Your task to perform on an android device: turn pop-ups off in chrome Image 0: 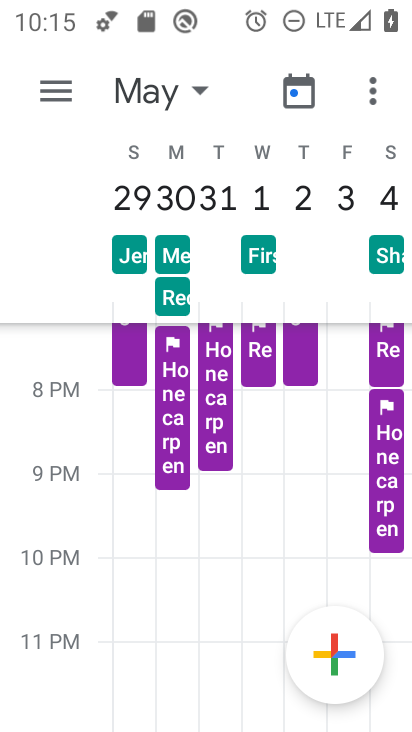
Step 0: press home button
Your task to perform on an android device: turn pop-ups off in chrome Image 1: 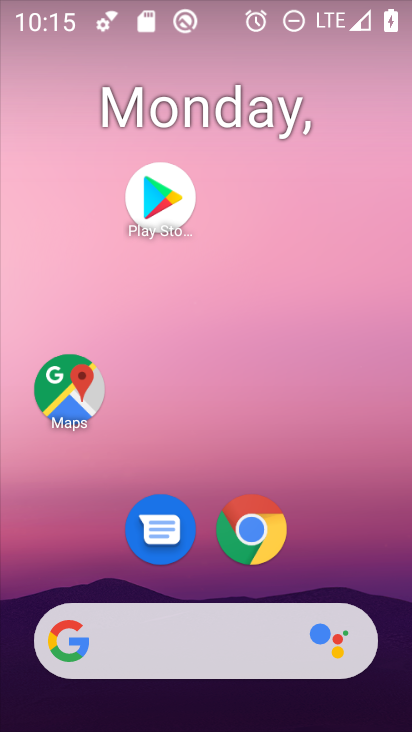
Step 1: click (266, 528)
Your task to perform on an android device: turn pop-ups off in chrome Image 2: 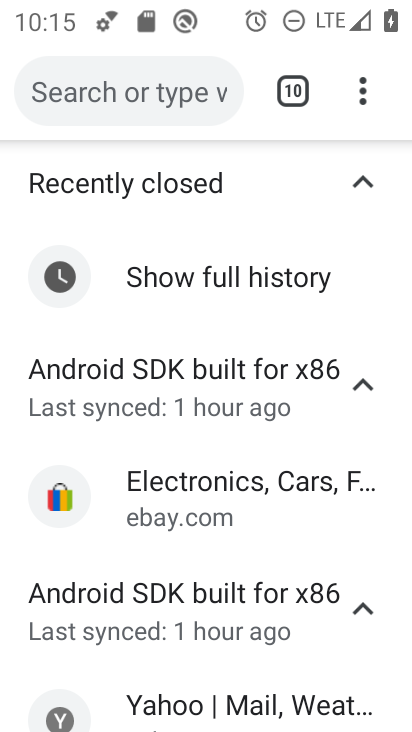
Step 2: click (360, 88)
Your task to perform on an android device: turn pop-ups off in chrome Image 3: 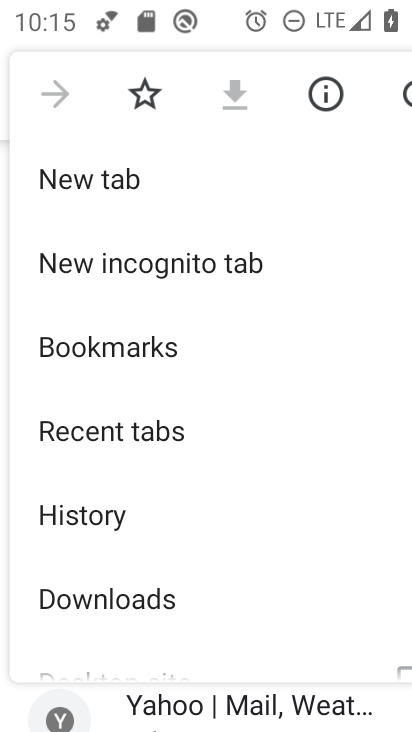
Step 3: drag from (232, 496) to (175, 280)
Your task to perform on an android device: turn pop-ups off in chrome Image 4: 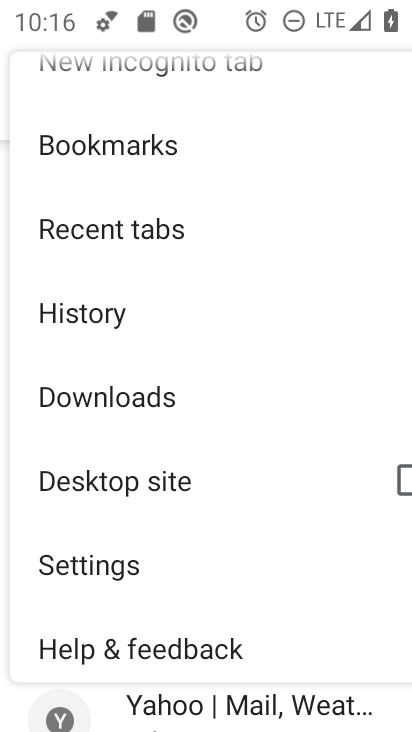
Step 4: click (95, 557)
Your task to perform on an android device: turn pop-ups off in chrome Image 5: 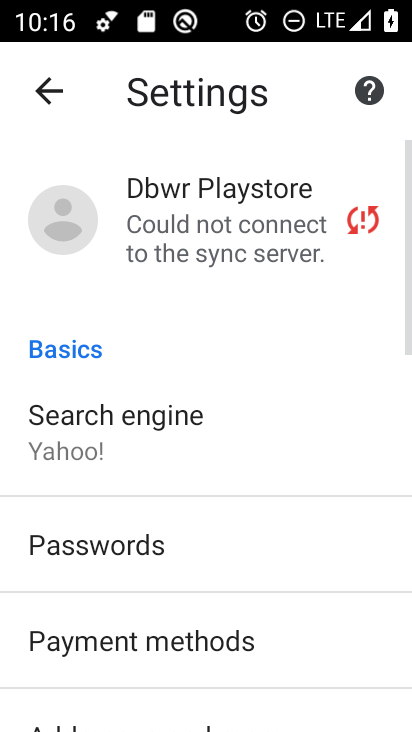
Step 5: drag from (206, 541) to (166, 143)
Your task to perform on an android device: turn pop-ups off in chrome Image 6: 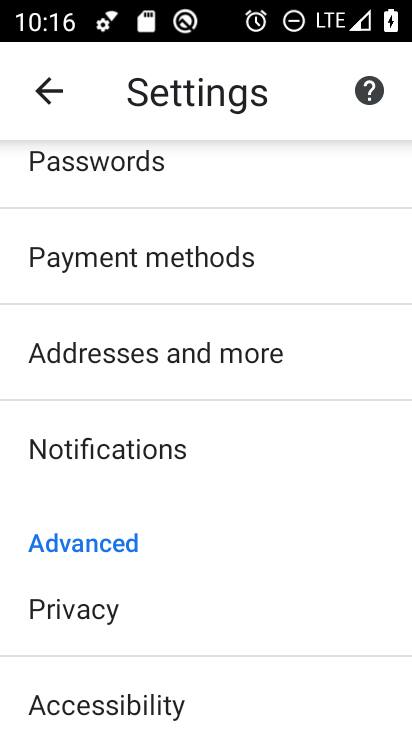
Step 6: drag from (229, 497) to (216, 230)
Your task to perform on an android device: turn pop-ups off in chrome Image 7: 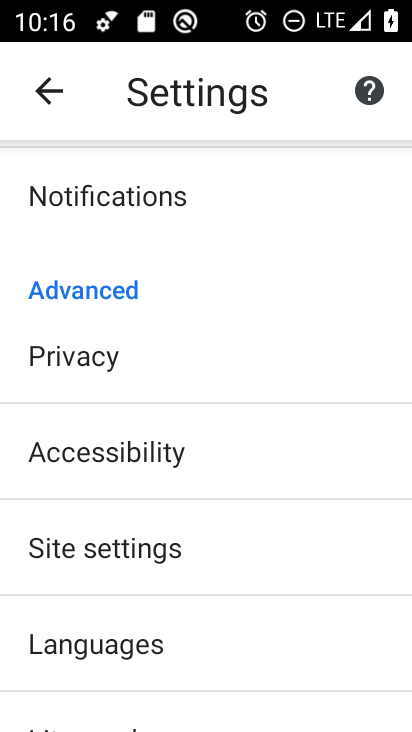
Step 7: click (126, 545)
Your task to perform on an android device: turn pop-ups off in chrome Image 8: 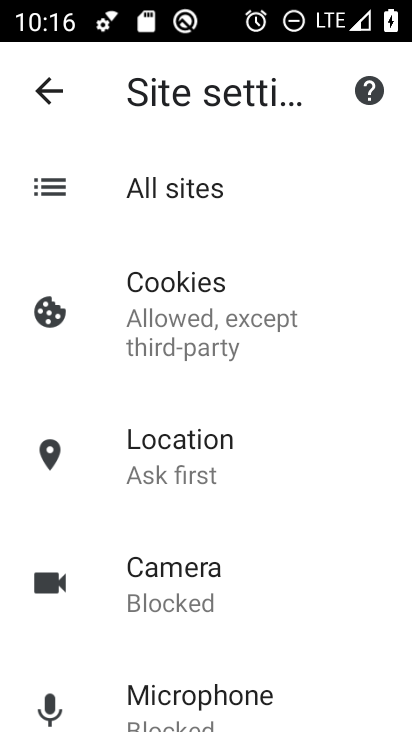
Step 8: drag from (279, 542) to (180, 122)
Your task to perform on an android device: turn pop-ups off in chrome Image 9: 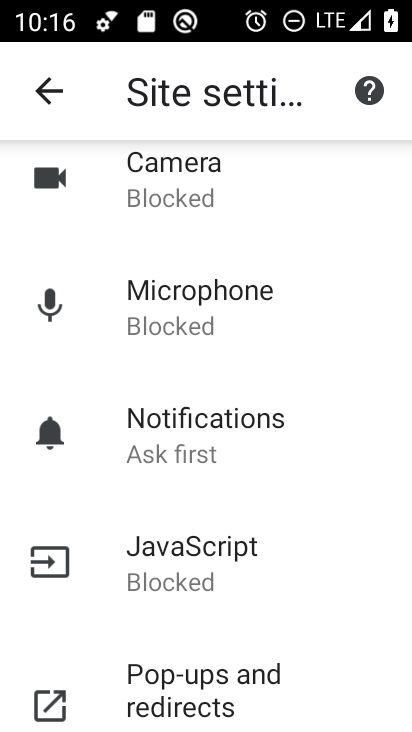
Step 9: click (191, 667)
Your task to perform on an android device: turn pop-ups off in chrome Image 10: 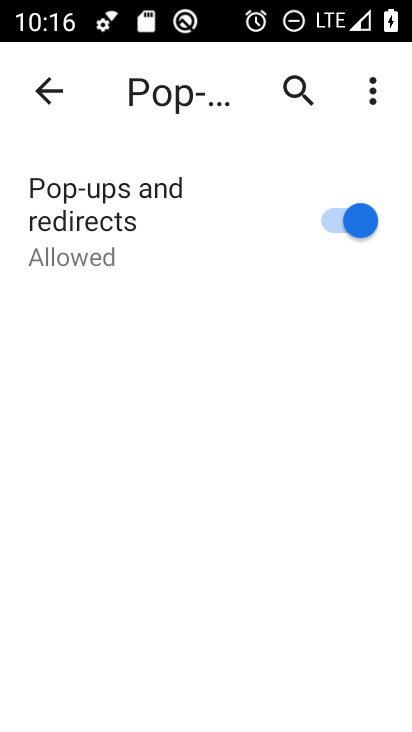
Step 10: click (347, 214)
Your task to perform on an android device: turn pop-ups off in chrome Image 11: 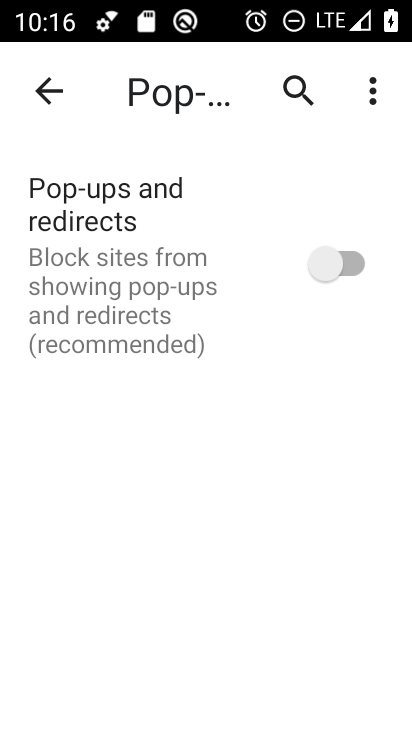
Step 11: task complete